Your task to perform on an android device: check storage Image 0: 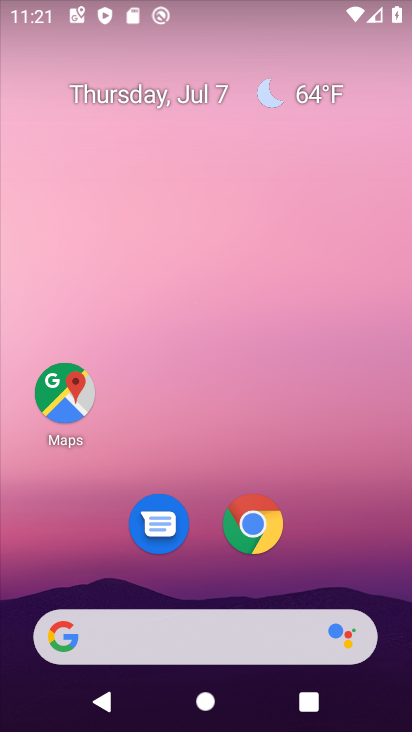
Step 0: drag from (254, 470) to (292, 0)
Your task to perform on an android device: check storage Image 1: 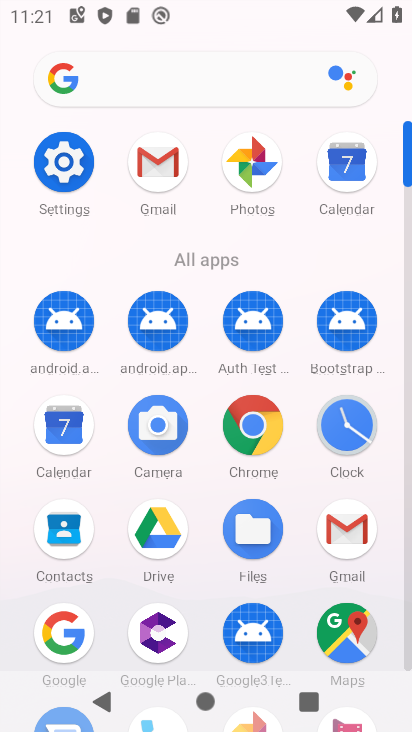
Step 1: click (59, 166)
Your task to perform on an android device: check storage Image 2: 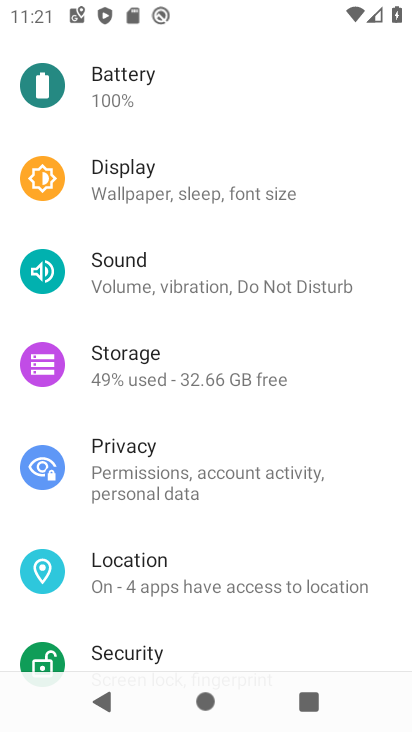
Step 2: click (206, 369)
Your task to perform on an android device: check storage Image 3: 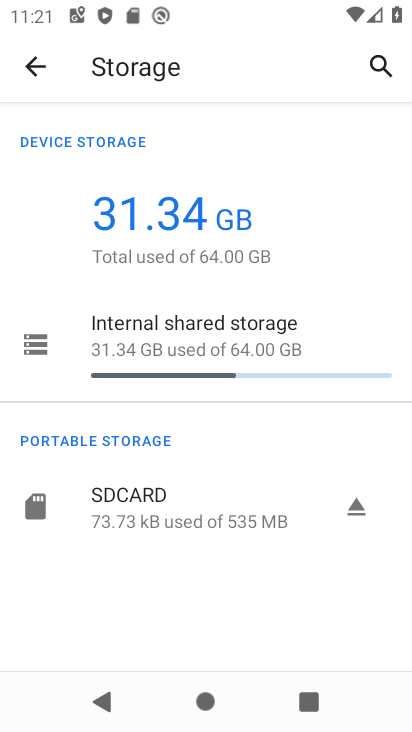
Step 3: task complete